Your task to perform on an android device: open chrome privacy settings Image 0: 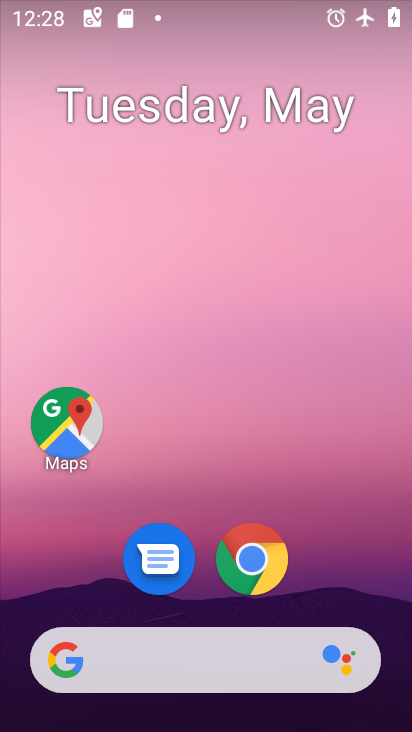
Step 0: drag from (345, 596) to (250, 37)
Your task to perform on an android device: open chrome privacy settings Image 1: 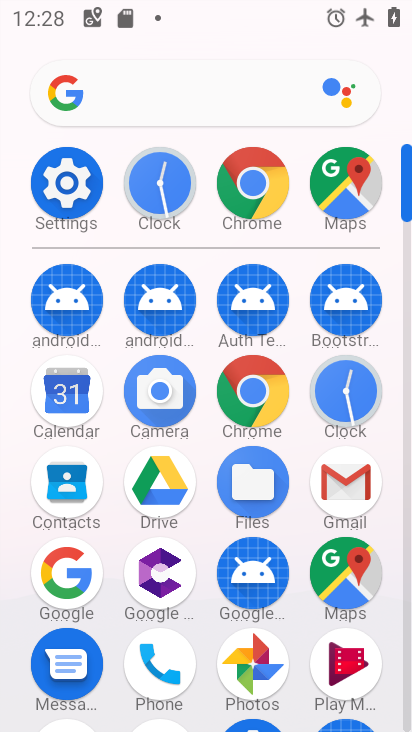
Step 1: click (262, 160)
Your task to perform on an android device: open chrome privacy settings Image 2: 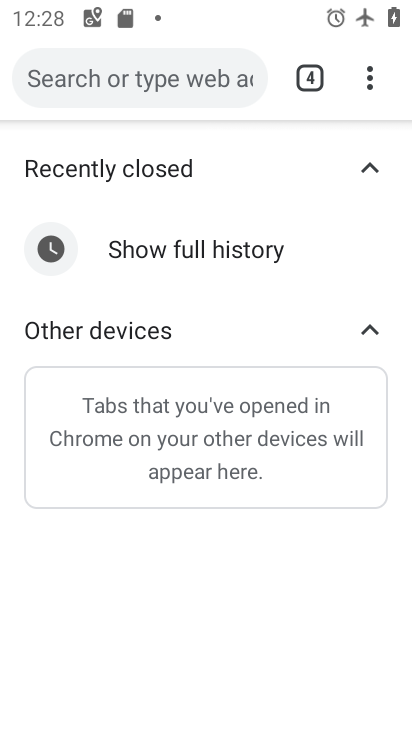
Step 2: click (364, 79)
Your task to perform on an android device: open chrome privacy settings Image 3: 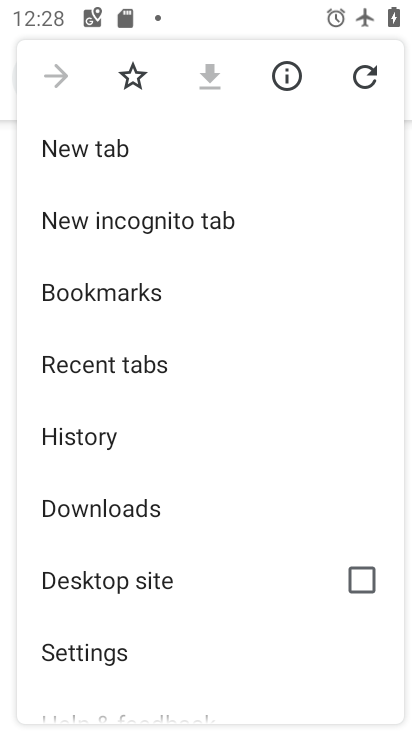
Step 3: drag from (195, 632) to (152, 291)
Your task to perform on an android device: open chrome privacy settings Image 4: 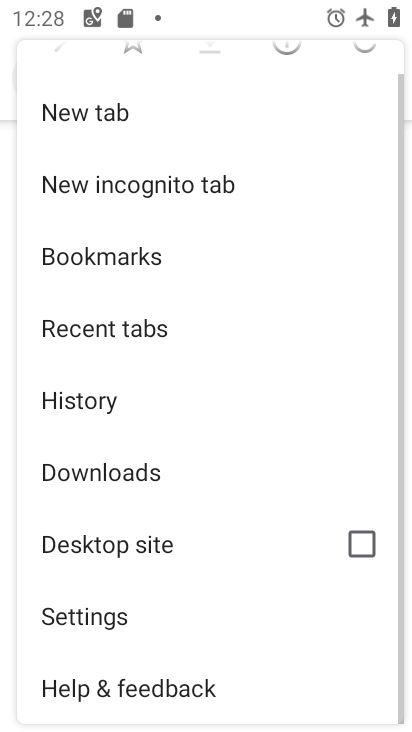
Step 4: click (138, 604)
Your task to perform on an android device: open chrome privacy settings Image 5: 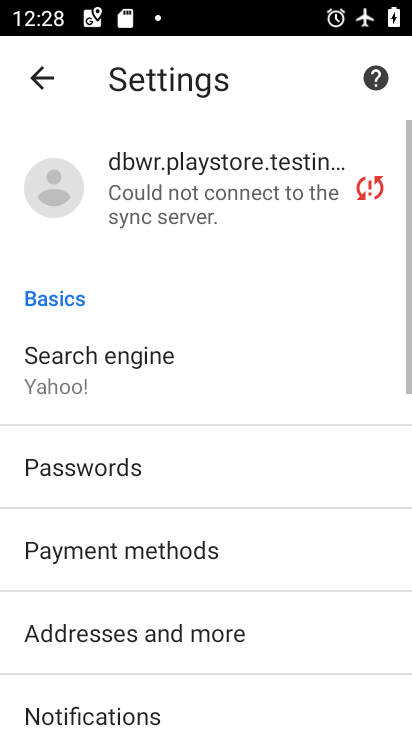
Step 5: drag from (208, 614) to (161, 201)
Your task to perform on an android device: open chrome privacy settings Image 6: 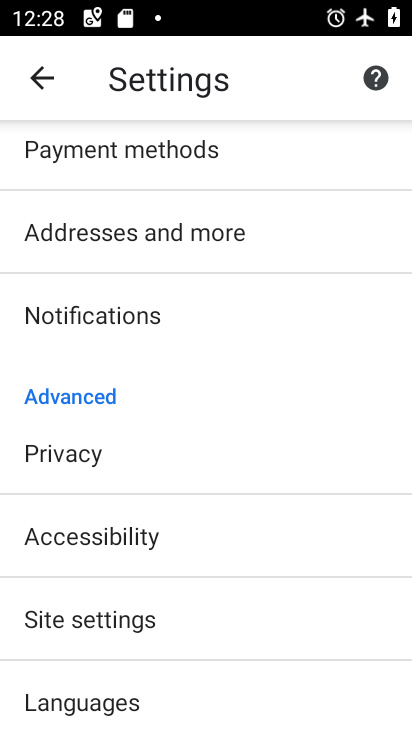
Step 6: click (193, 471)
Your task to perform on an android device: open chrome privacy settings Image 7: 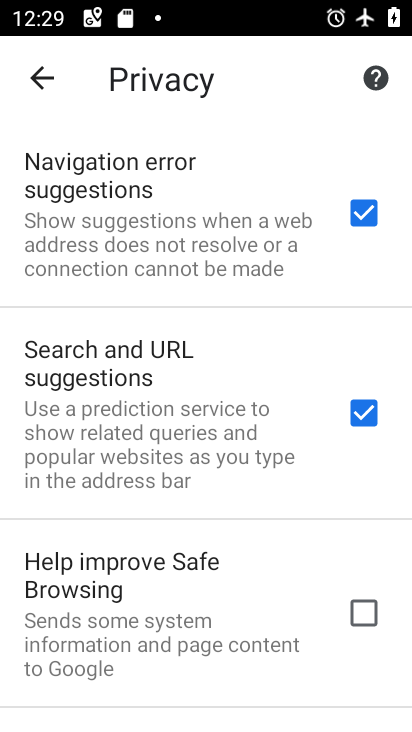
Step 7: task complete